Your task to perform on an android device: turn on javascript in the chrome app Image 0: 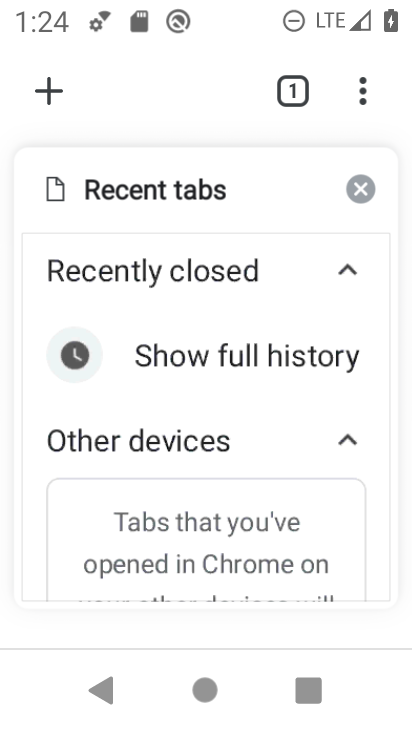
Step 0: press home button
Your task to perform on an android device: turn on javascript in the chrome app Image 1: 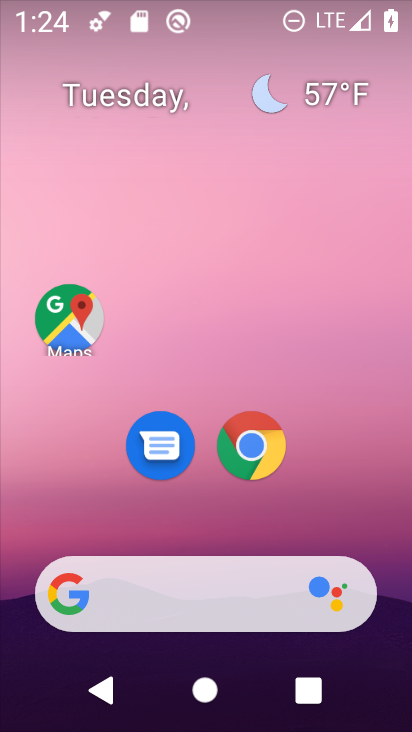
Step 1: drag from (355, 499) to (403, 189)
Your task to perform on an android device: turn on javascript in the chrome app Image 2: 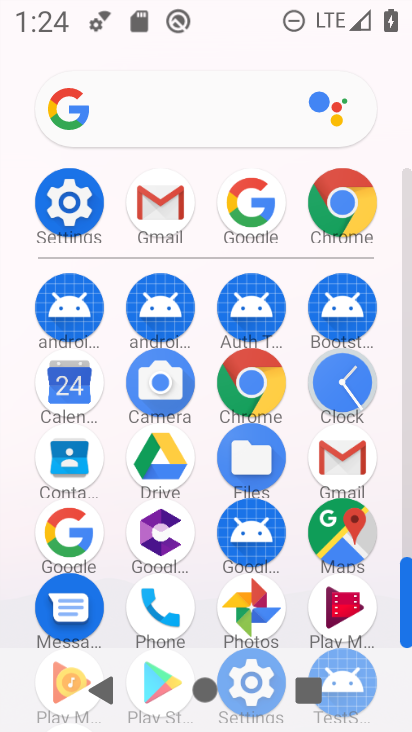
Step 2: drag from (278, 400) to (302, 129)
Your task to perform on an android device: turn on javascript in the chrome app Image 3: 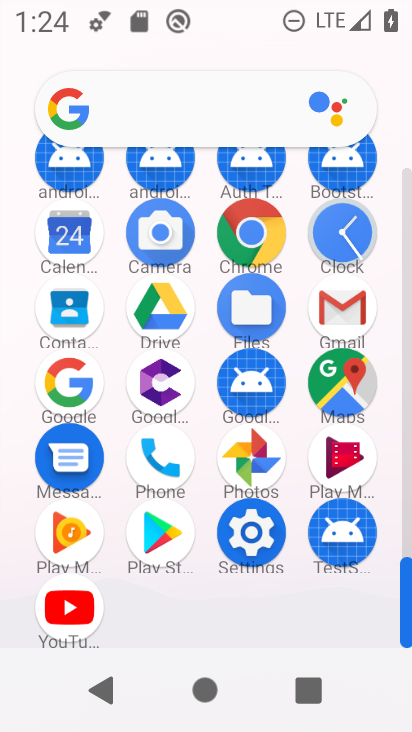
Step 3: click (257, 245)
Your task to perform on an android device: turn on javascript in the chrome app Image 4: 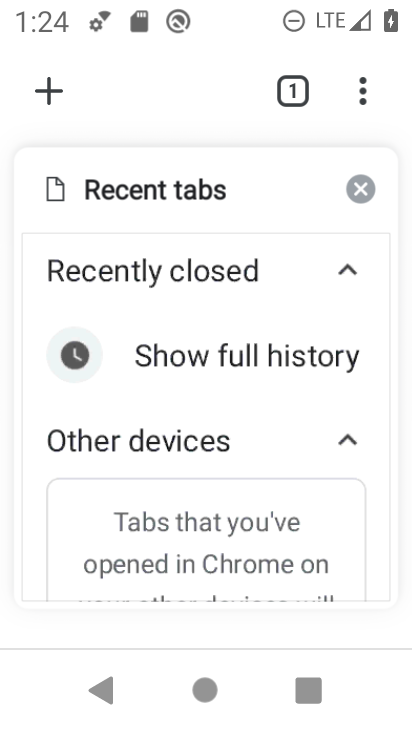
Step 4: press back button
Your task to perform on an android device: turn on javascript in the chrome app Image 5: 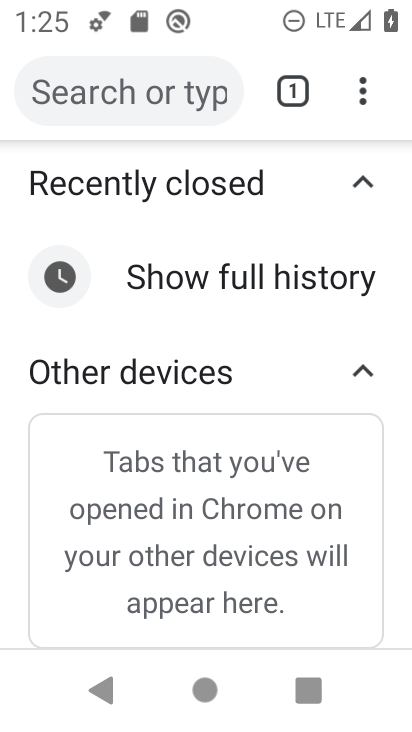
Step 5: click (363, 100)
Your task to perform on an android device: turn on javascript in the chrome app Image 6: 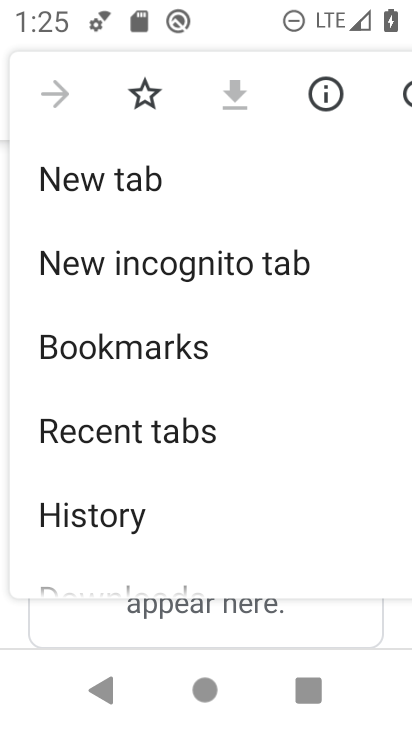
Step 6: drag from (316, 419) to (291, 257)
Your task to perform on an android device: turn on javascript in the chrome app Image 7: 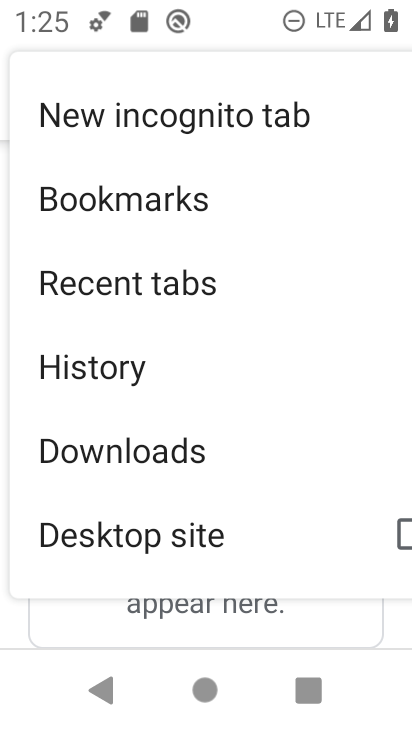
Step 7: drag from (345, 399) to (314, 252)
Your task to perform on an android device: turn on javascript in the chrome app Image 8: 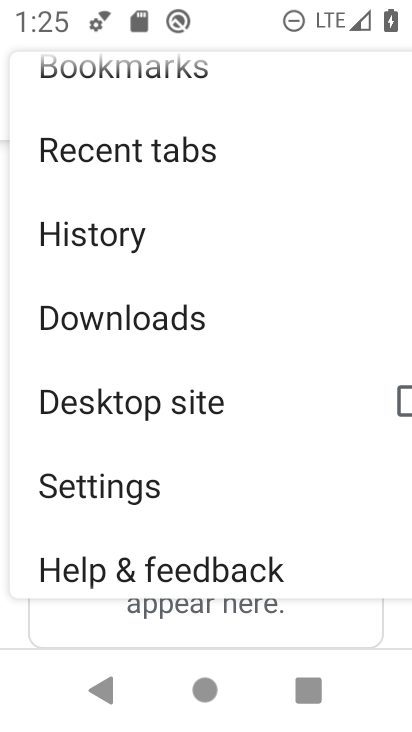
Step 8: drag from (326, 413) to (291, 253)
Your task to perform on an android device: turn on javascript in the chrome app Image 9: 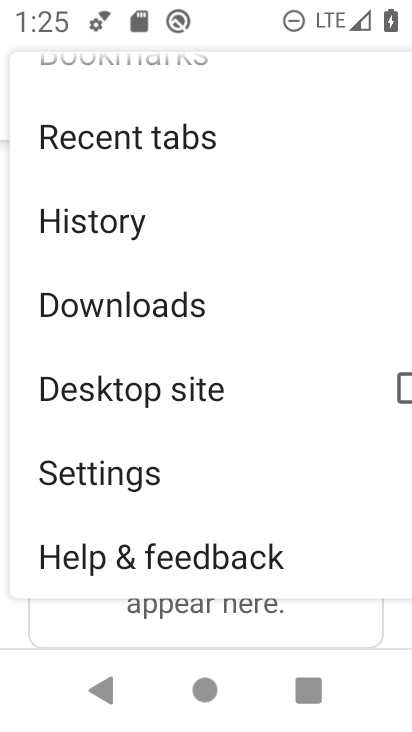
Step 9: click (149, 478)
Your task to perform on an android device: turn on javascript in the chrome app Image 10: 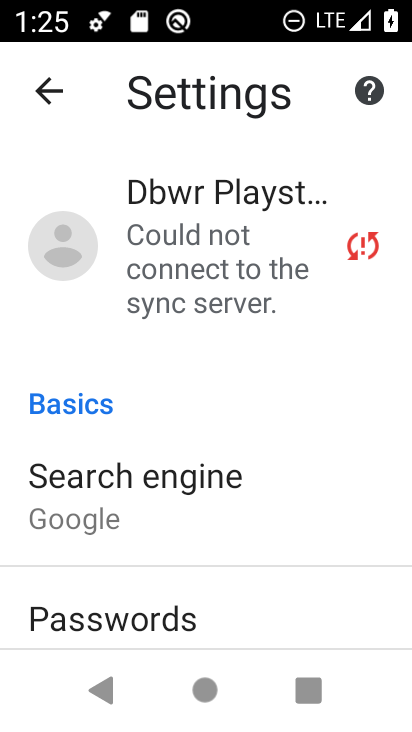
Step 10: drag from (223, 525) to (214, 429)
Your task to perform on an android device: turn on javascript in the chrome app Image 11: 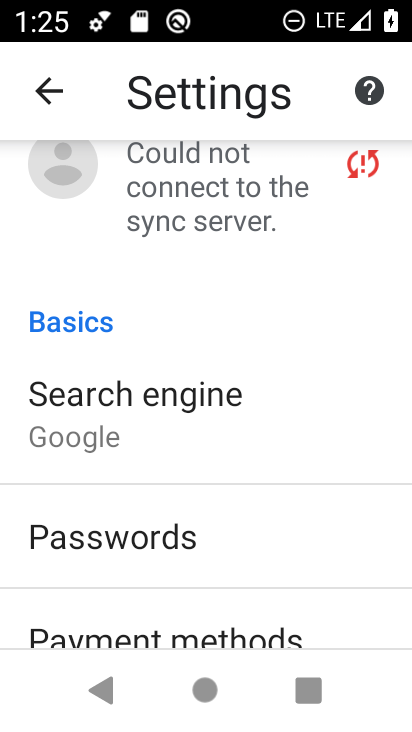
Step 11: drag from (242, 491) to (244, 394)
Your task to perform on an android device: turn on javascript in the chrome app Image 12: 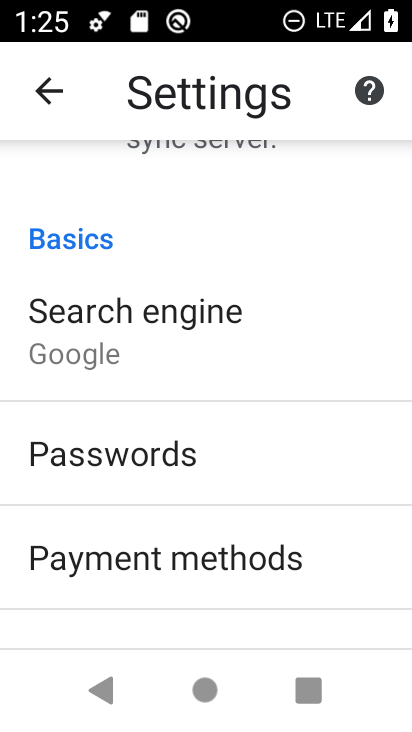
Step 12: drag from (318, 563) to (305, 456)
Your task to perform on an android device: turn on javascript in the chrome app Image 13: 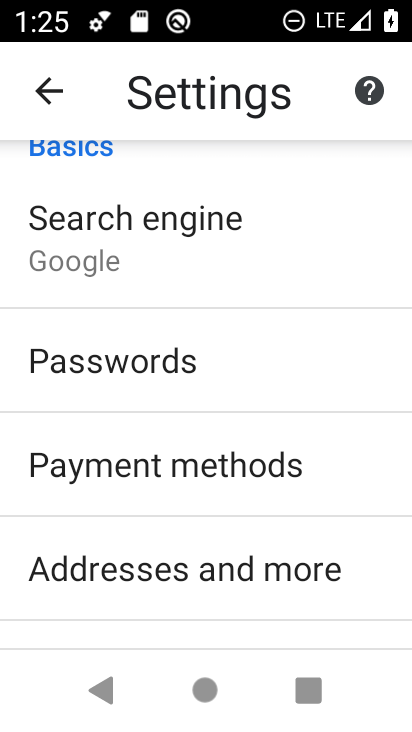
Step 13: drag from (345, 595) to (346, 468)
Your task to perform on an android device: turn on javascript in the chrome app Image 14: 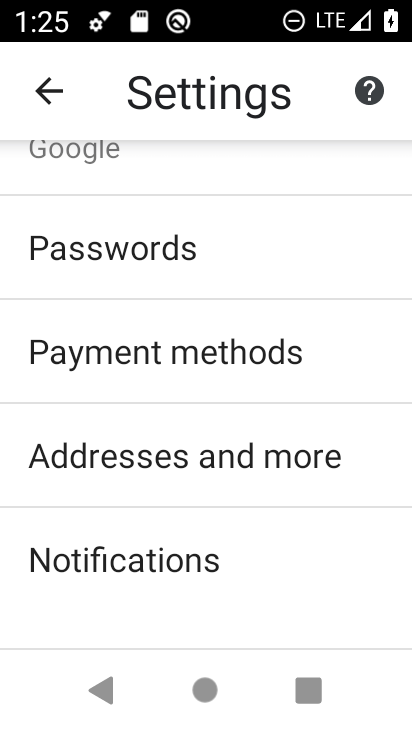
Step 14: drag from (352, 578) to (355, 462)
Your task to perform on an android device: turn on javascript in the chrome app Image 15: 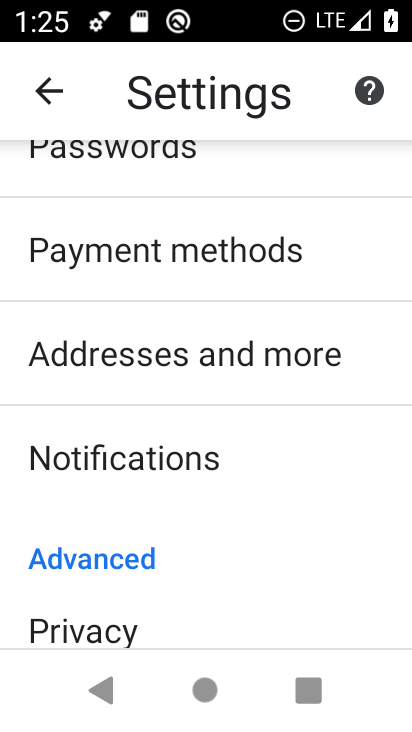
Step 15: drag from (350, 609) to (335, 522)
Your task to perform on an android device: turn on javascript in the chrome app Image 16: 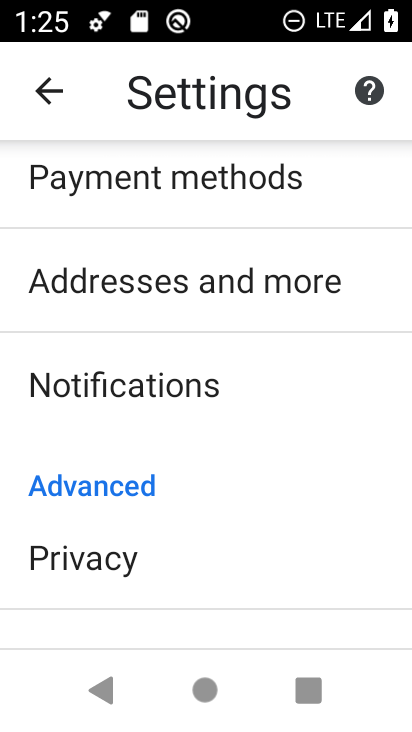
Step 16: drag from (351, 589) to (334, 492)
Your task to perform on an android device: turn on javascript in the chrome app Image 17: 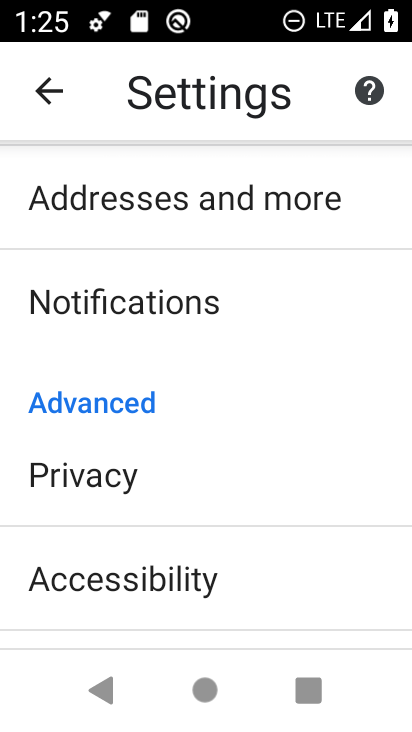
Step 17: drag from (342, 575) to (335, 492)
Your task to perform on an android device: turn on javascript in the chrome app Image 18: 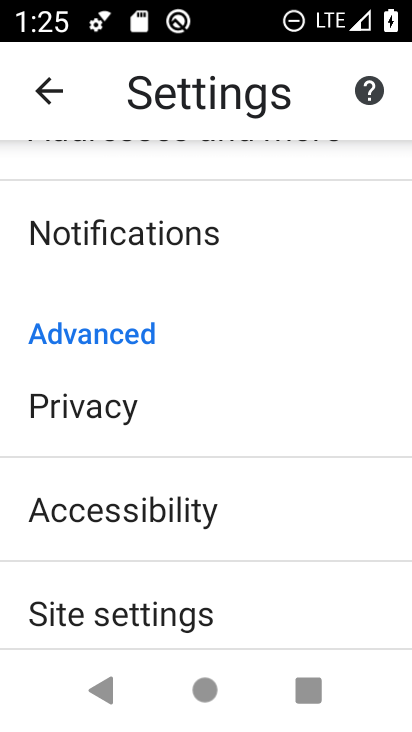
Step 18: drag from (339, 623) to (345, 515)
Your task to perform on an android device: turn on javascript in the chrome app Image 19: 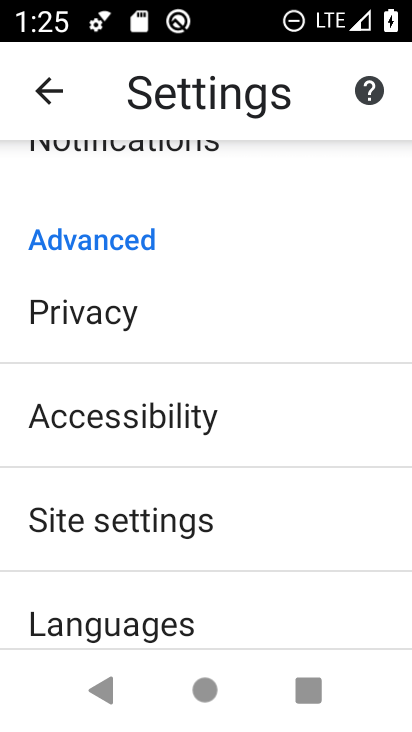
Step 19: click (338, 530)
Your task to perform on an android device: turn on javascript in the chrome app Image 20: 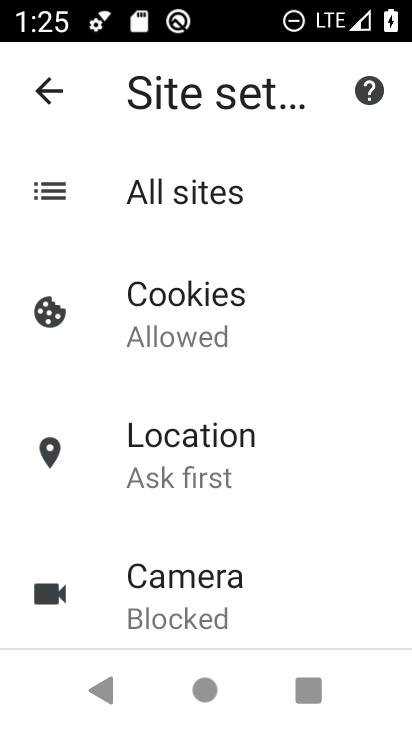
Step 20: drag from (336, 590) to (336, 470)
Your task to perform on an android device: turn on javascript in the chrome app Image 21: 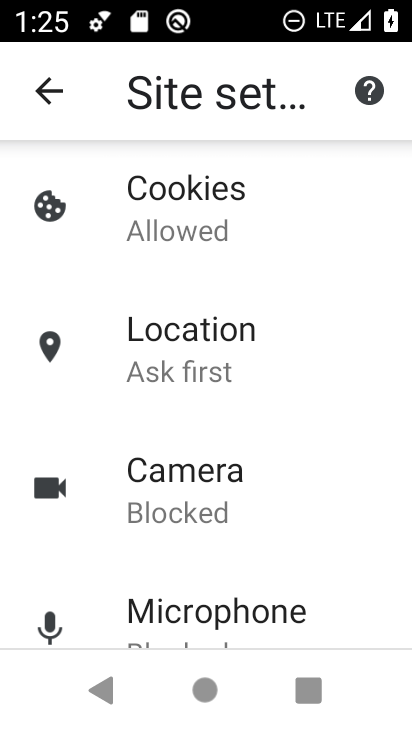
Step 21: drag from (331, 582) to (317, 472)
Your task to perform on an android device: turn on javascript in the chrome app Image 22: 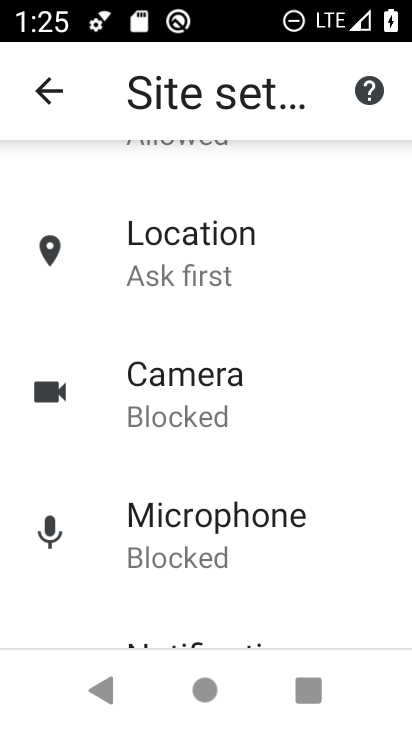
Step 22: drag from (339, 619) to (332, 511)
Your task to perform on an android device: turn on javascript in the chrome app Image 23: 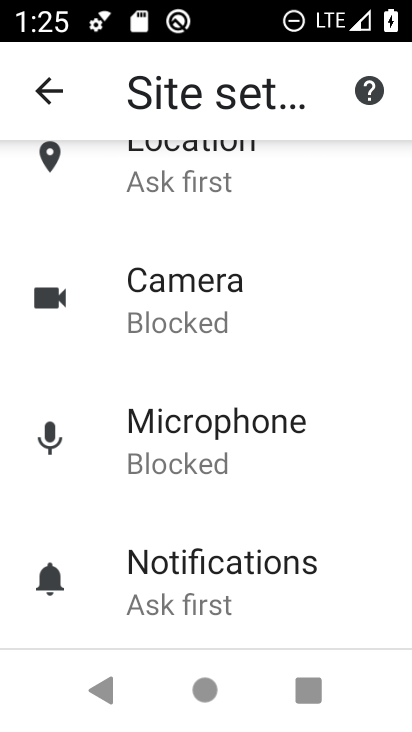
Step 23: drag from (342, 614) to (335, 511)
Your task to perform on an android device: turn on javascript in the chrome app Image 24: 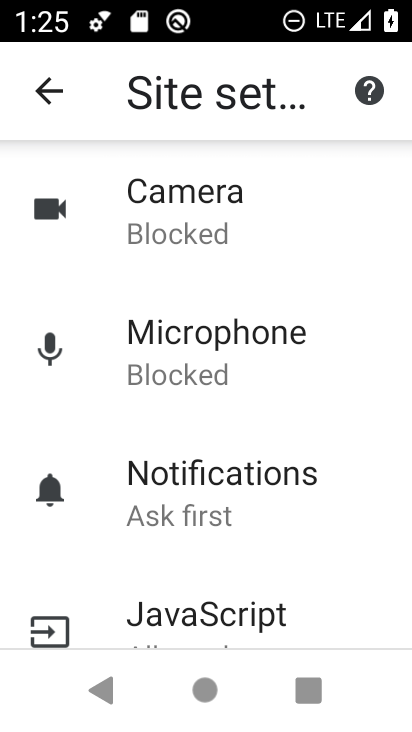
Step 24: drag from (333, 636) to (330, 536)
Your task to perform on an android device: turn on javascript in the chrome app Image 25: 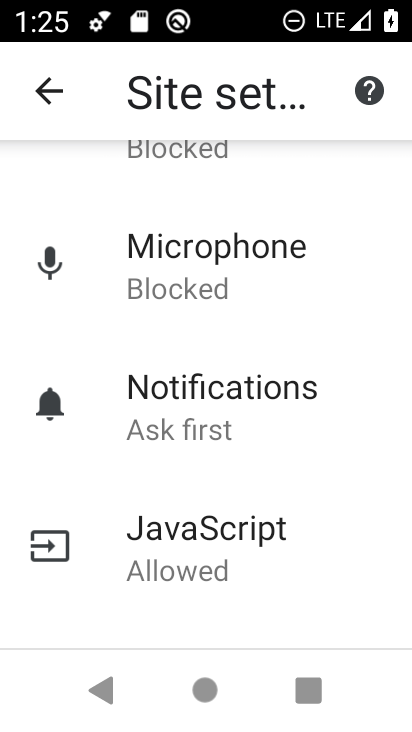
Step 25: drag from (338, 595) to (336, 513)
Your task to perform on an android device: turn on javascript in the chrome app Image 26: 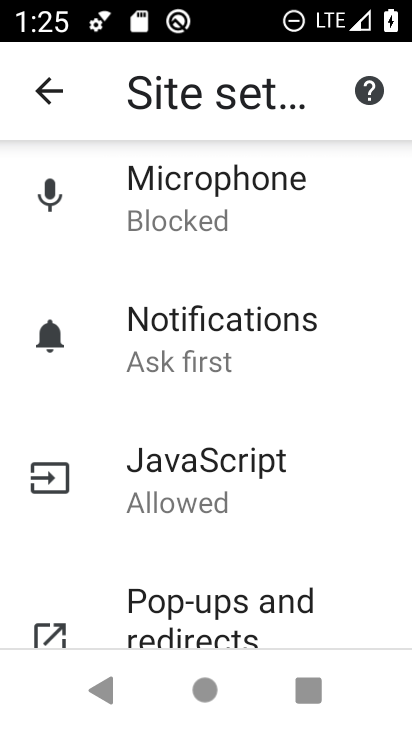
Step 26: drag from (348, 602) to (350, 515)
Your task to perform on an android device: turn on javascript in the chrome app Image 27: 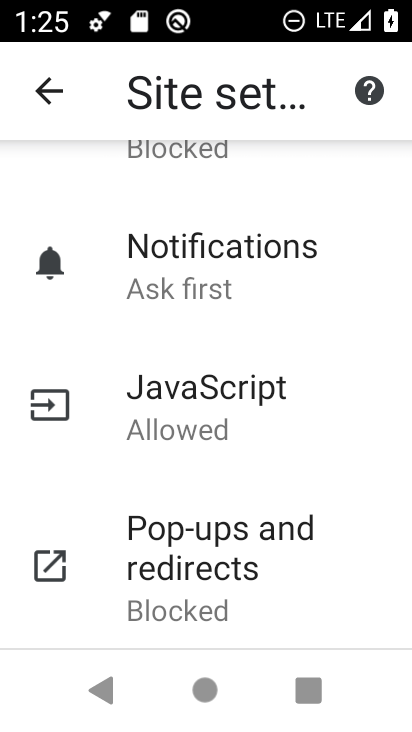
Step 27: drag from (358, 585) to (358, 544)
Your task to perform on an android device: turn on javascript in the chrome app Image 28: 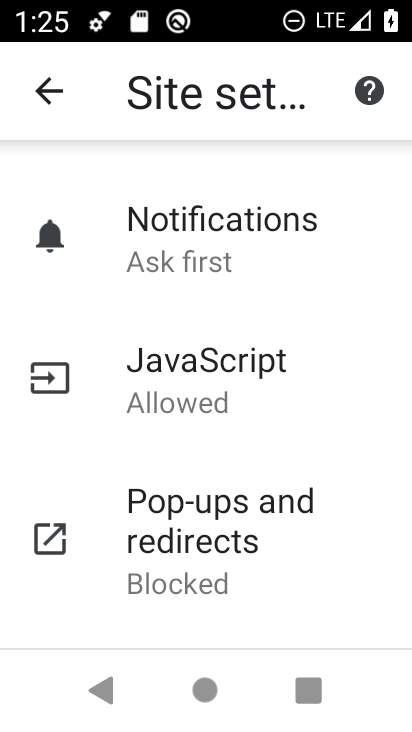
Step 28: click (159, 397)
Your task to perform on an android device: turn on javascript in the chrome app Image 29: 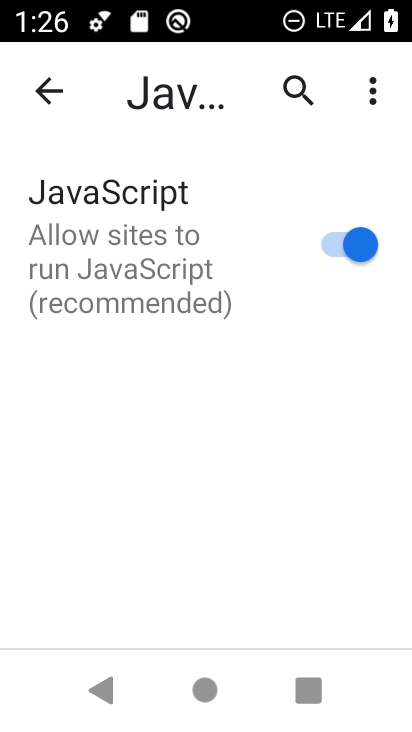
Step 29: task complete